Your task to perform on an android device: move an email to a new category in the gmail app Image 0: 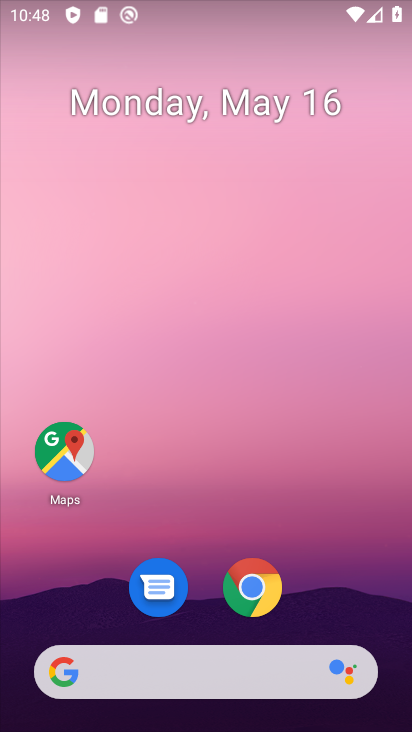
Step 0: drag from (377, 565) to (260, 57)
Your task to perform on an android device: move an email to a new category in the gmail app Image 1: 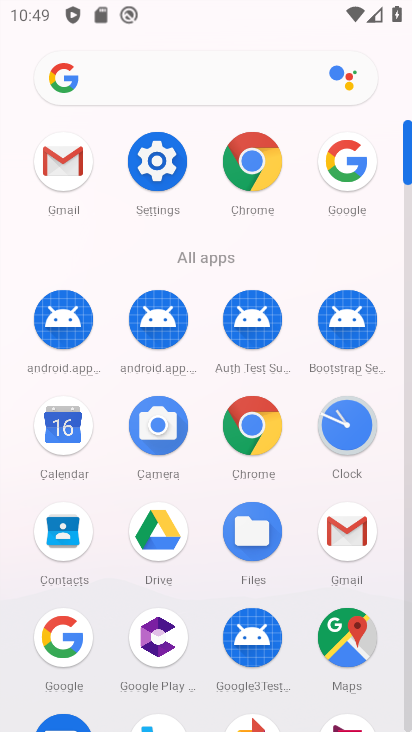
Step 1: click (336, 541)
Your task to perform on an android device: move an email to a new category in the gmail app Image 2: 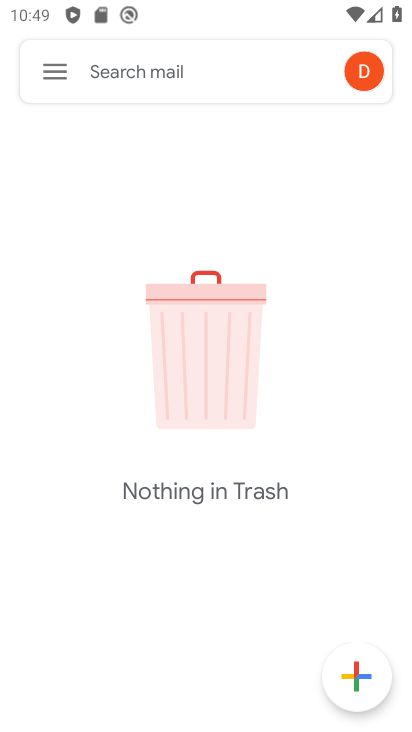
Step 2: click (57, 65)
Your task to perform on an android device: move an email to a new category in the gmail app Image 3: 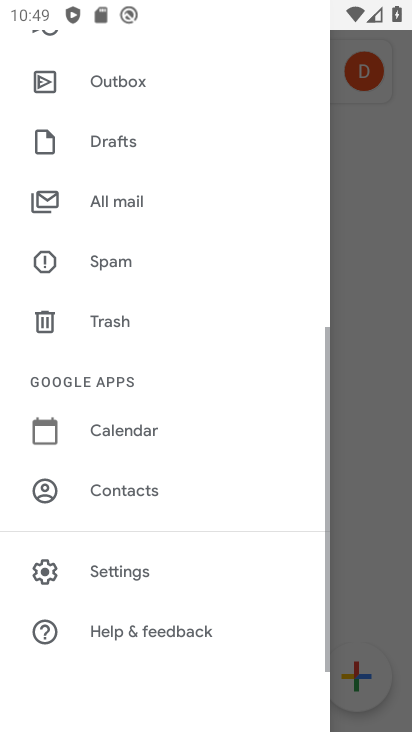
Step 3: drag from (160, 176) to (77, 664)
Your task to perform on an android device: move an email to a new category in the gmail app Image 4: 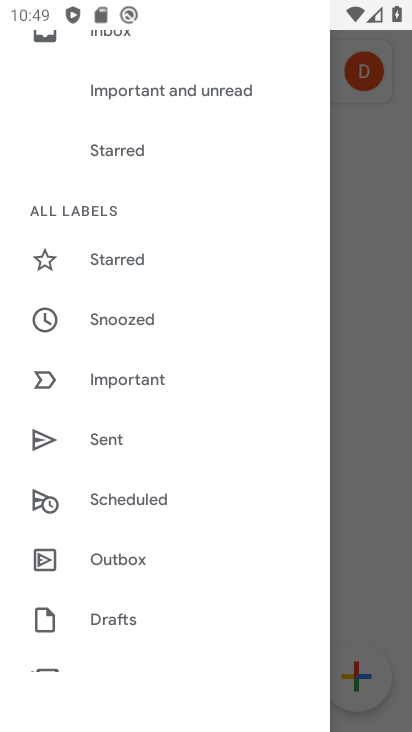
Step 4: drag from (112, 181) to (118, 638)
Your task to perform on an android device: move an email to a new category in the gmail app Image 5: 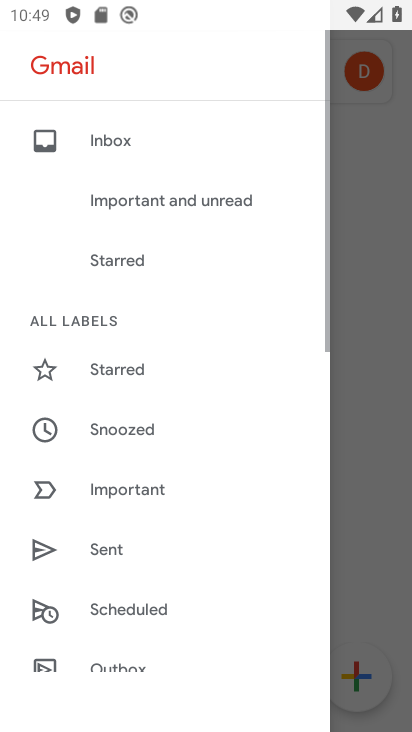
Step 5: click (161, 158)
Your task to perform on an android device: move an email to a new category in the gmail app Image 6: 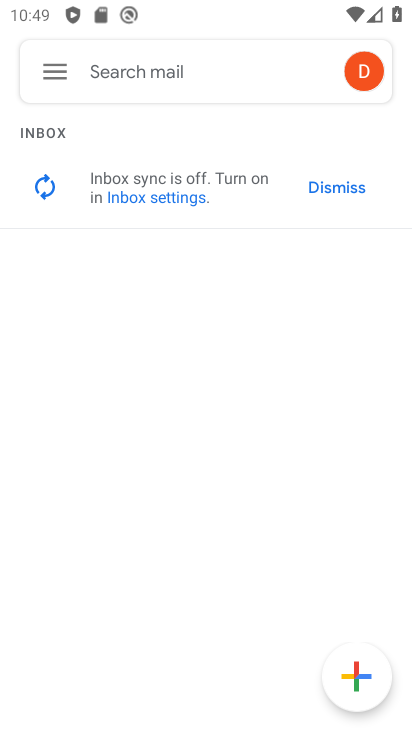
Step 6: task complete